Your task to perform on an android device: open app "Google Drive" Image 0: 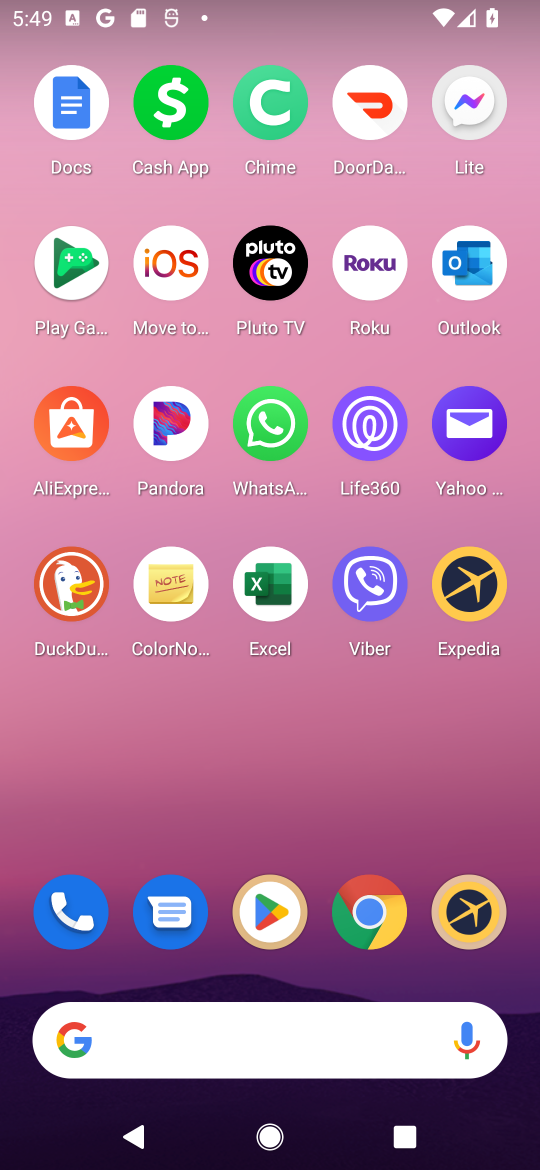
Step 0: click (248, 918)
Your task to perform on an android device: open app "Google Drive" Image 1: 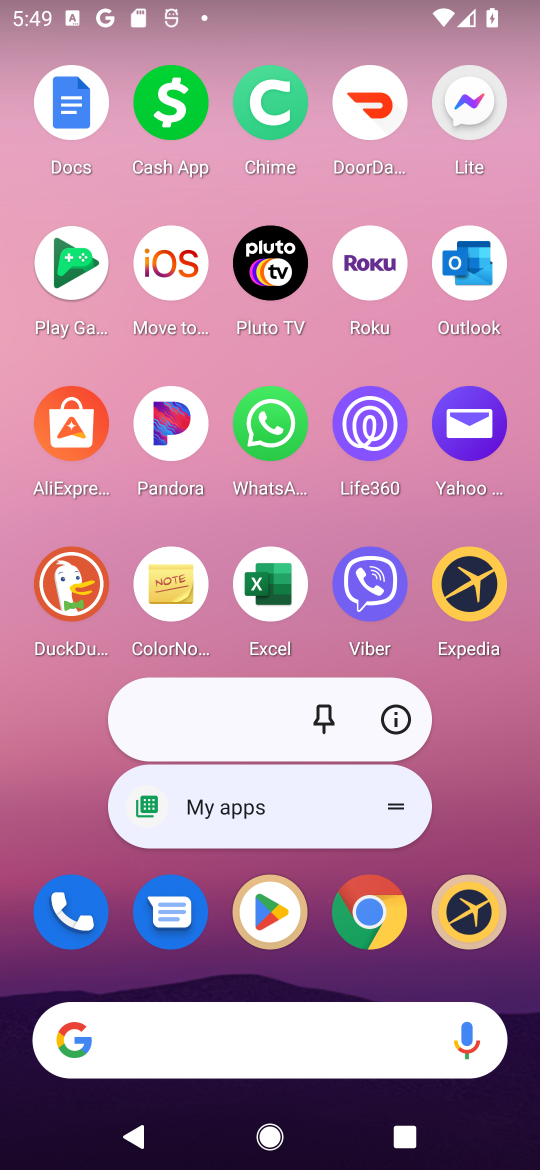
Step 1: click (248, 918)
Your task to perform on an android device: open app "Google Drive" Image 2: 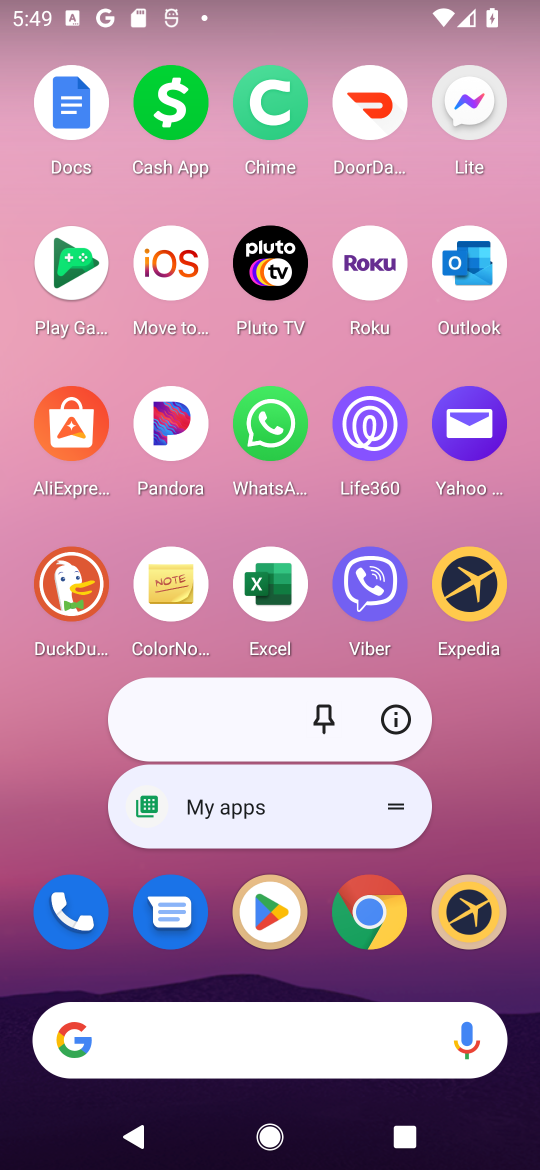
Step 2: click (262, 914)
Your task to perform on an android device: open app "Google Drive" Image 3: 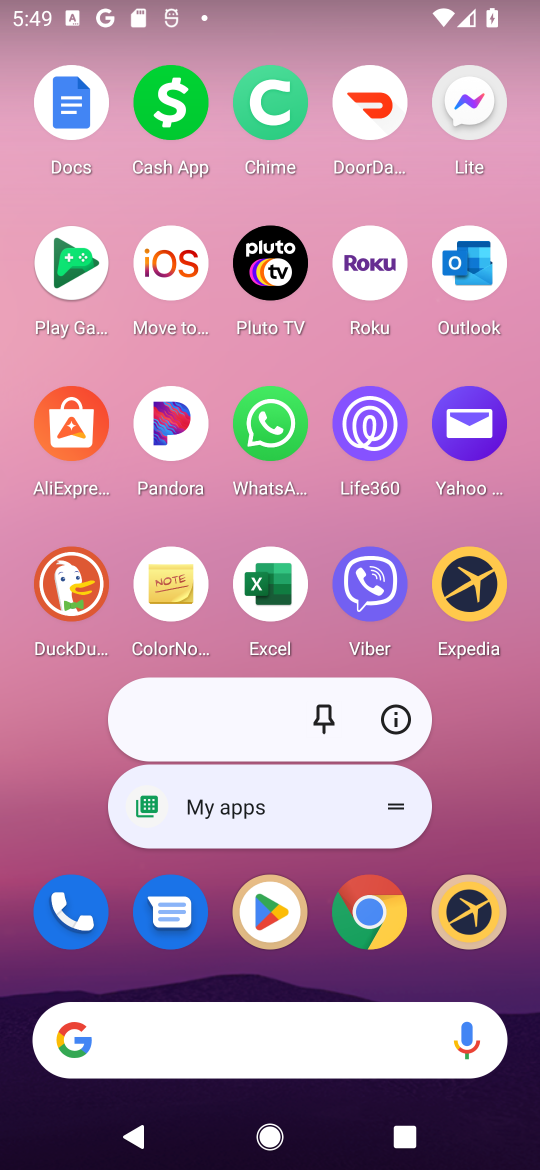
Step 3: click (262, 908)
Your task to perform on an android device: open app "Google Drive" Image 4: 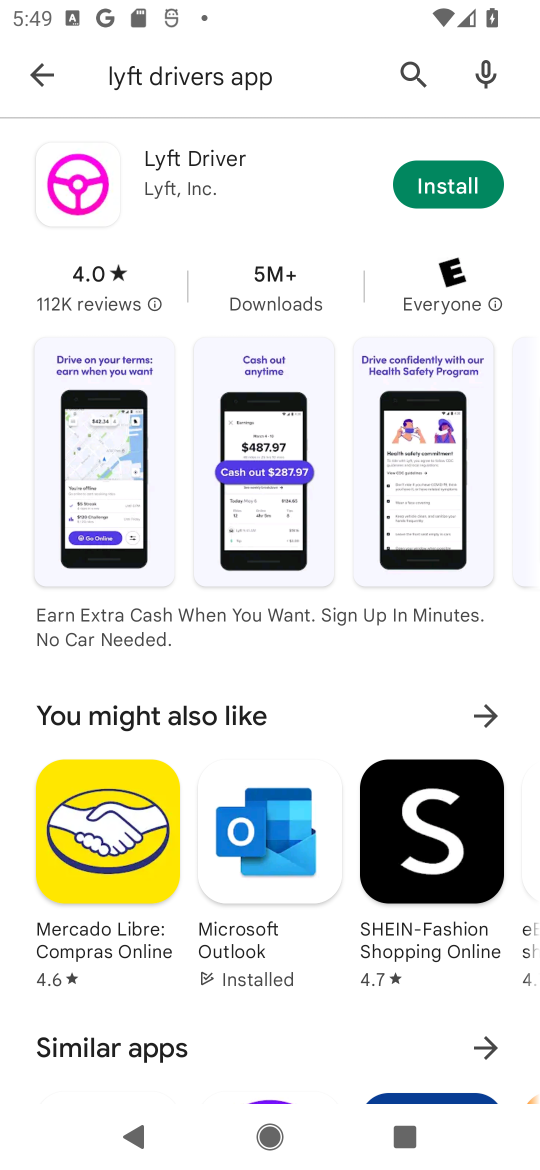
Step 4: click (45, 73)
Your task to perform on an android device: open app "Google Drive" Image 5: 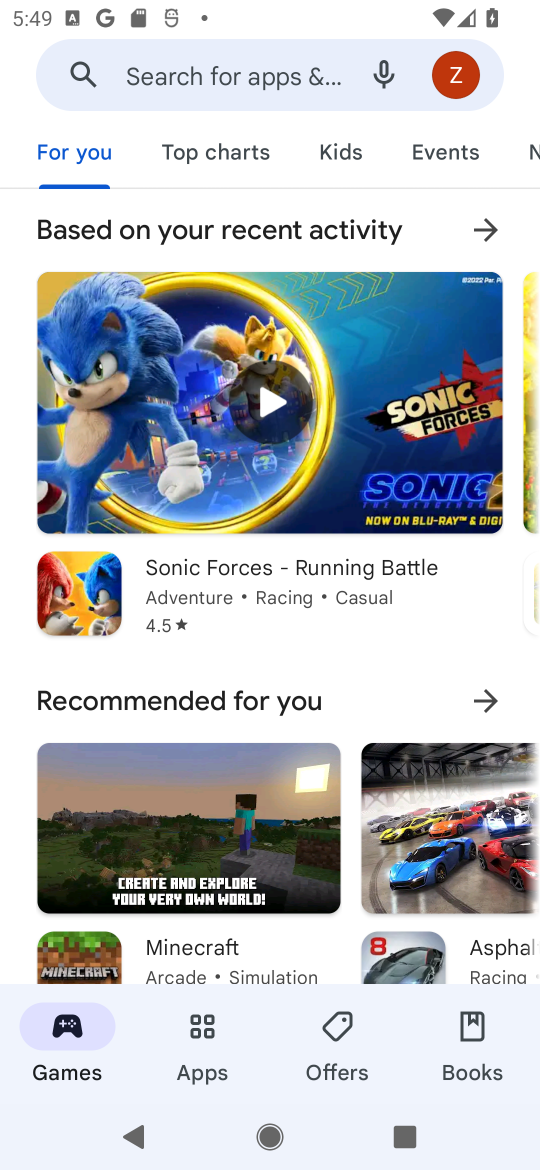
Step 5: click (243, 69)
Your task to perform on an android device: open app "Google Drive" Image 6: 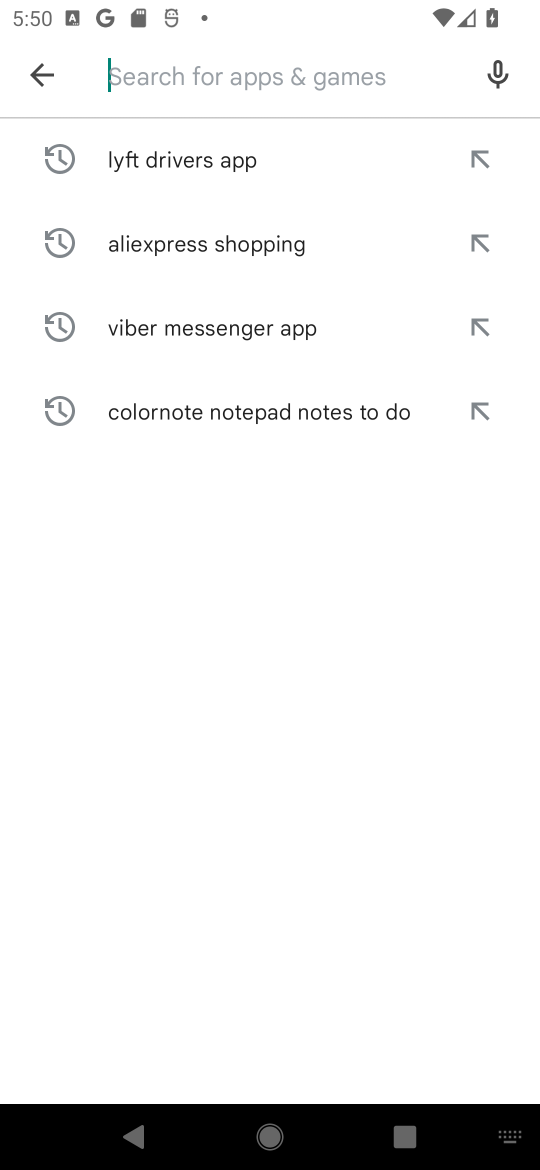
Step 6: type "google drive "
Your task to perform on an android device: open app "Google Drive" Image 7: 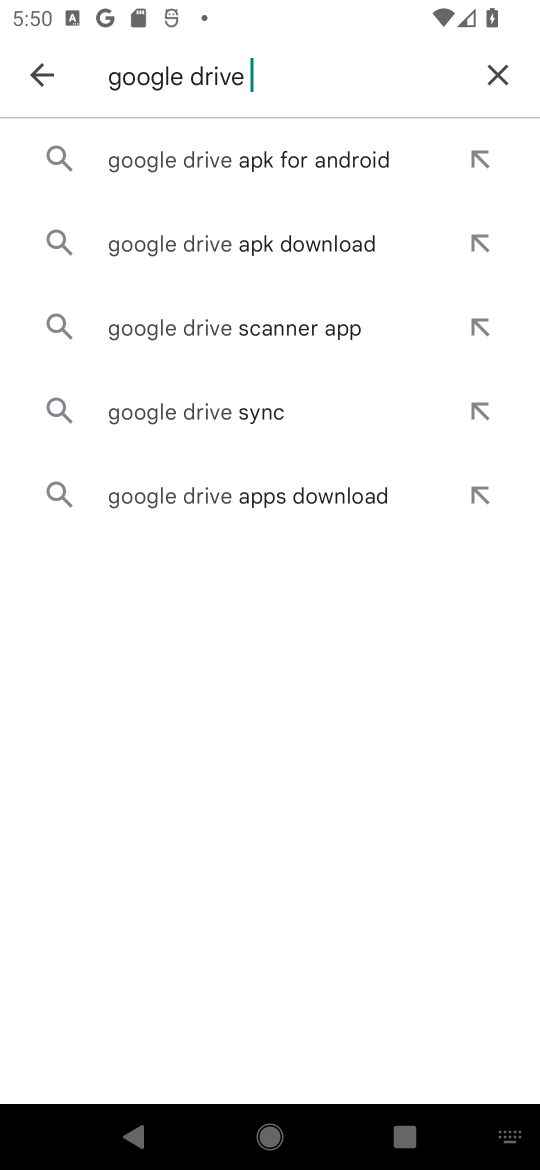
Step 7: click (300, 146)
Your task to perform on an android device: open app "Google Drive" Image 8: 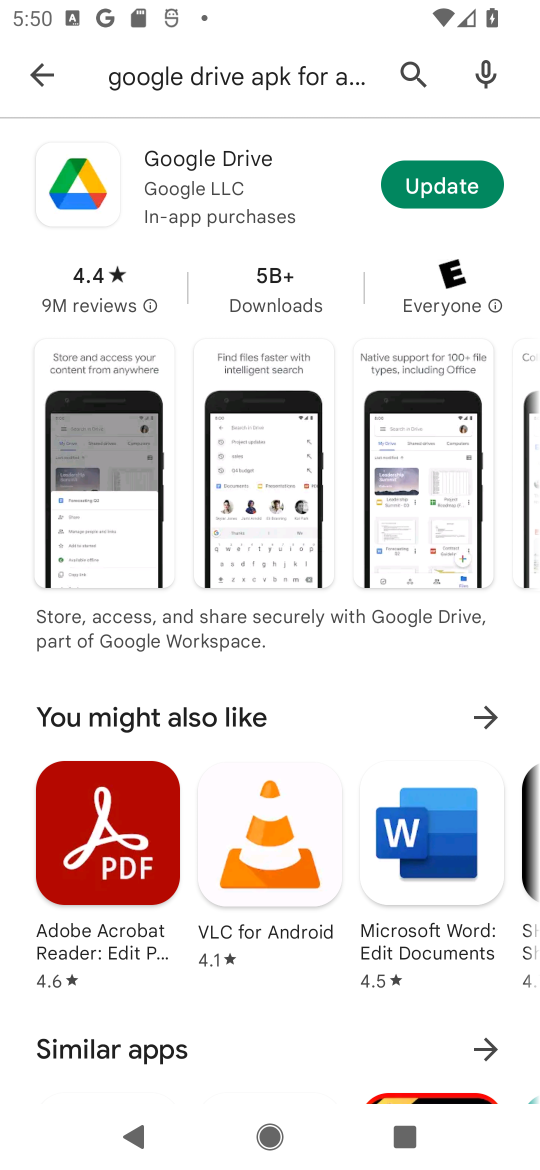
Step 8: click (423, 174)
Your task to perform on an android device: open app "Google Drive" Image 9: 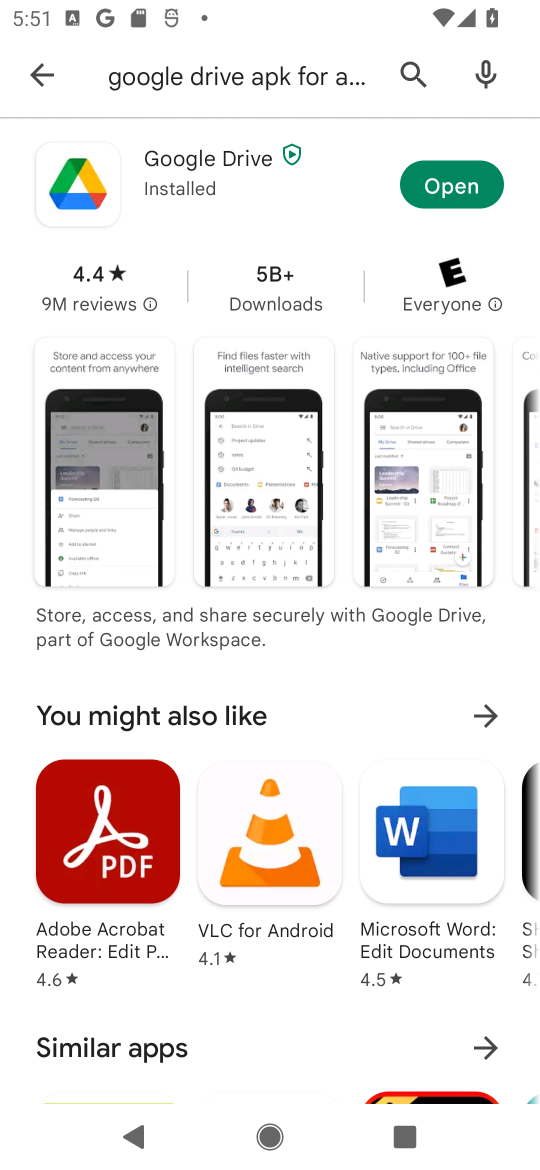
Step 9: click (461, 171)
Your task to perform on an android device: open app "Google Drive" Image 10: 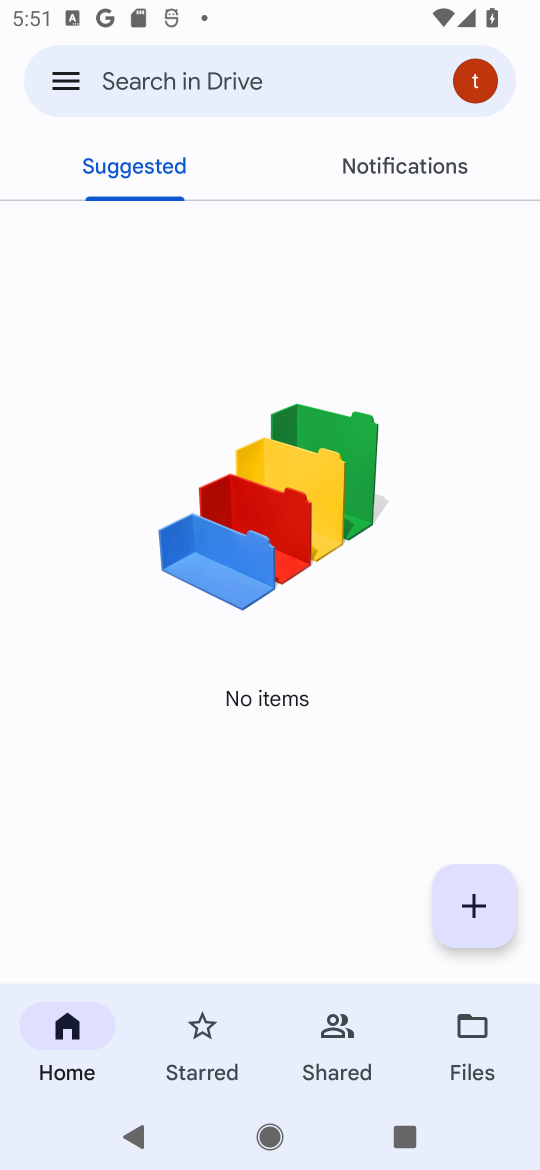
Step 10: task complete